Your task to perform on an android device: Open Chrome and go to the settings page Image 0: 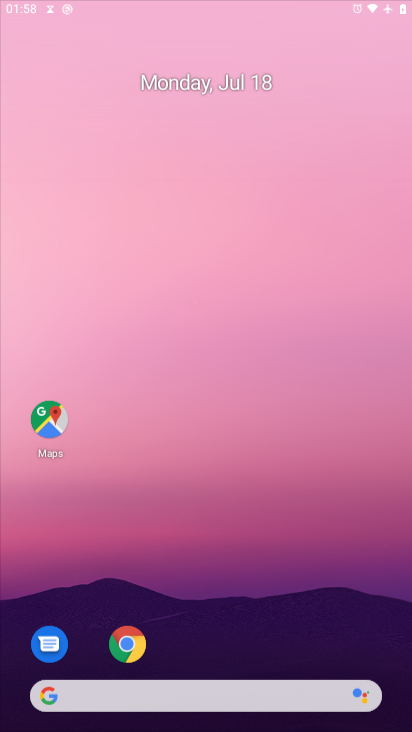
Step 0: press home button
Your task to perform on an android device: Open Chrome and go to the settings page Image 1: 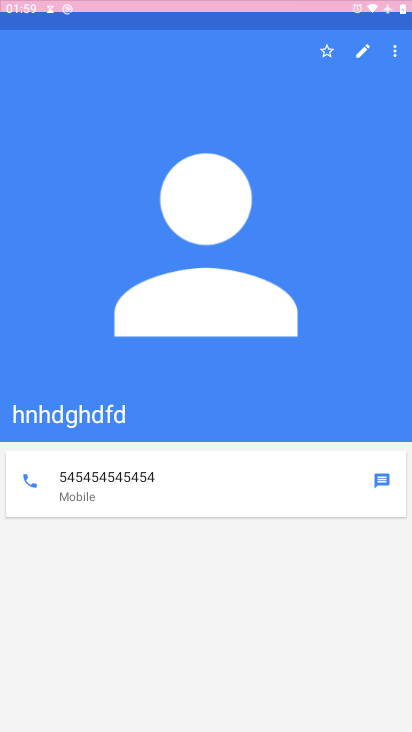
Step 1: drag from (224, 660) to (251, 104)
Your task to perform on an android device: Open Chrome and go to the settings page Image 2: 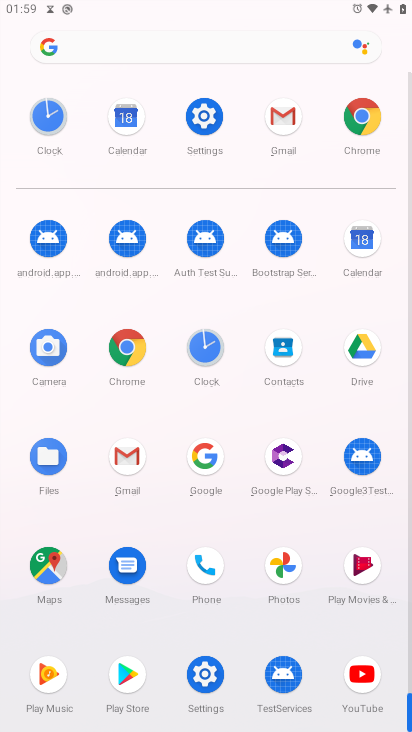
Step 2: click (362, 121)
Your task to perform on an android device: Open Chrome and go to the settings page Image 3: 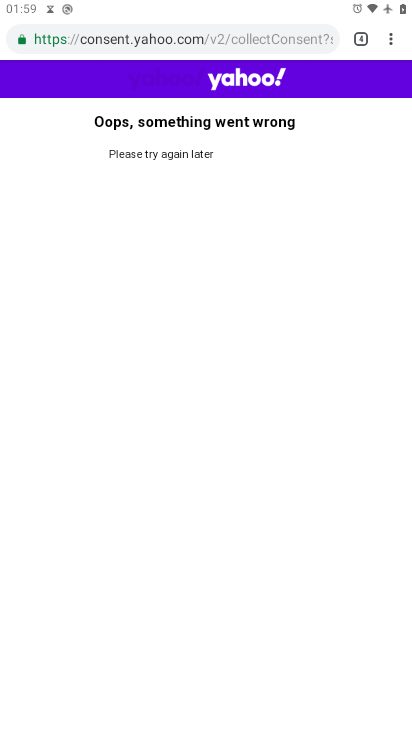
Step 3: task complete